Your task to perform on an android device: Open Android settings Image 0: 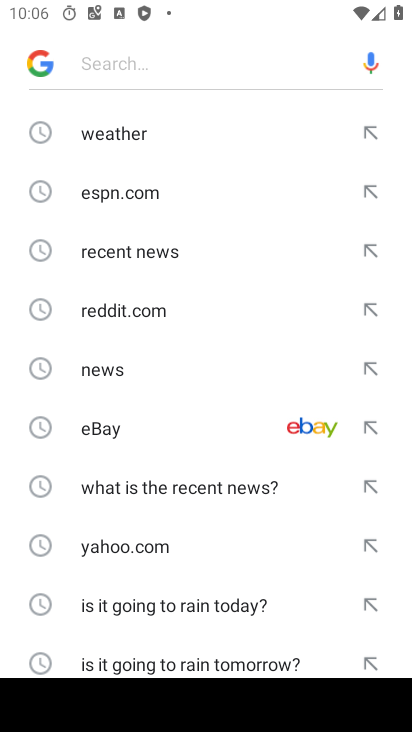
Step 0: press home button
Your task to perform on an android device: Open Android settings Image 1: 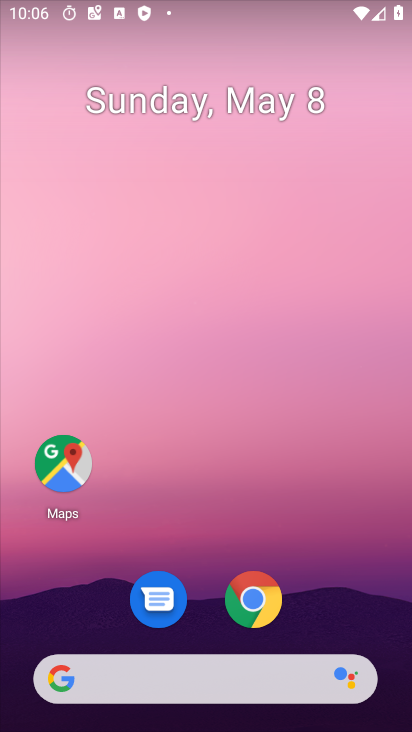
Step 1: drag from (217, 642) to (211, 186)
Your task to perform on an android device: Open Android settings Image 2: 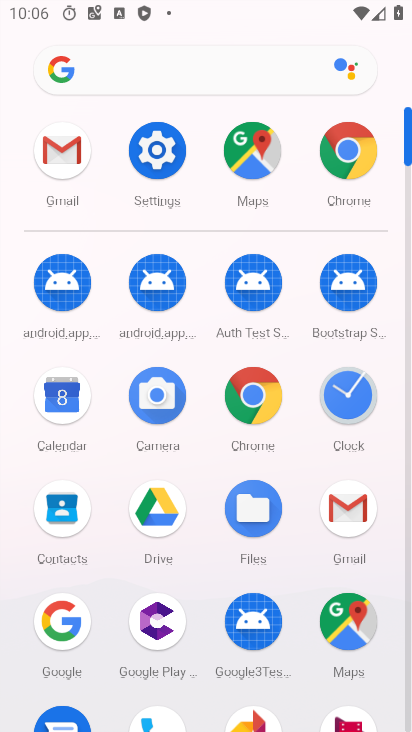
Step 2: click (160, 172)
Your task to perform on an android device: Open Android settings Image 3: 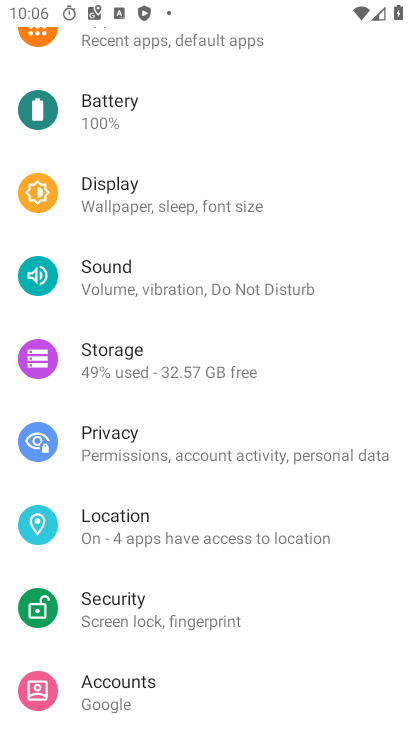
Step 3: drag from (149, 494) to (138, 190)
Your task to perform on an android device: Open Android settings Image 4: 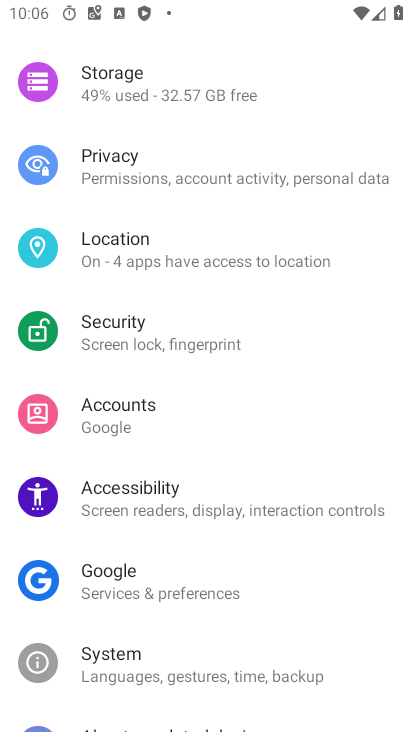
Step 4: drag from (135, 648) to (318, 178)
Your task to perform on an android device: Open Android settings Image 5: 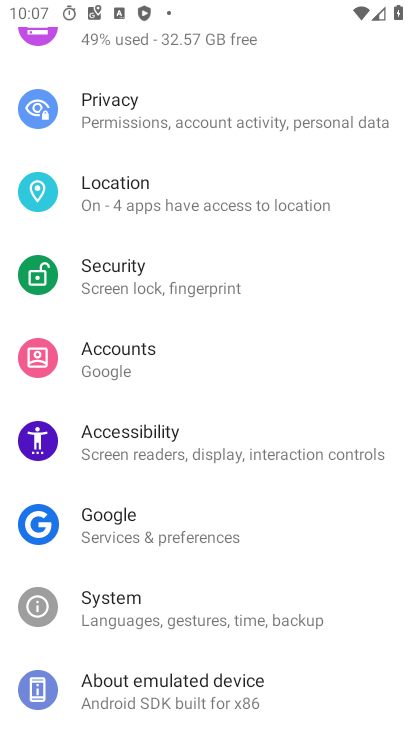
Step 5: click (227, 699)
Your task to perform on an android device: Open Android settings Image 6: 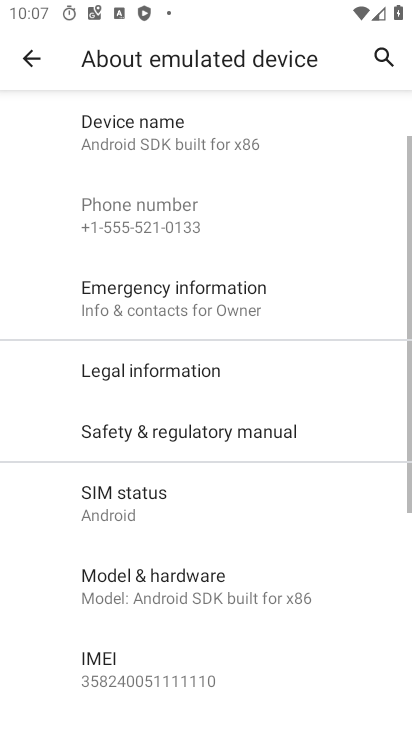
Step 6: click (236, 517)
Your task to perform on an android device: Open Android settings Image 7: 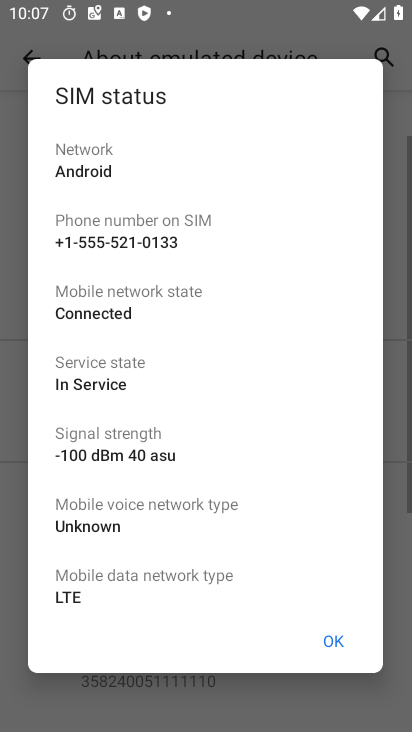
Step 7: click (332, 647)
Your task to perform on an android device: Open Android settings Image 8: 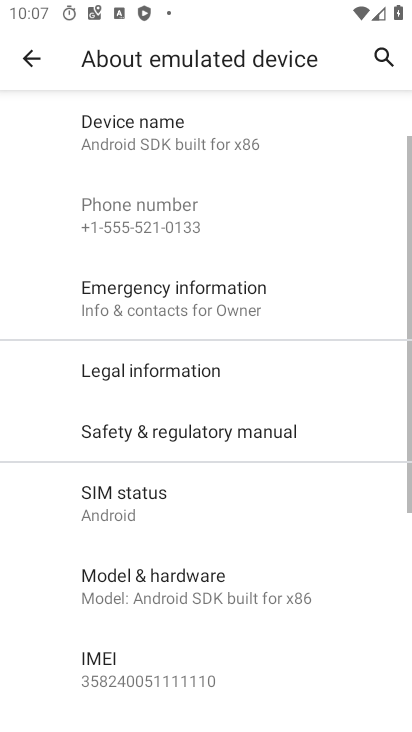
Step 8: drag from (297, 367) to (283, 501)
Your task to perform on an android device: Open Android settings Image 9: 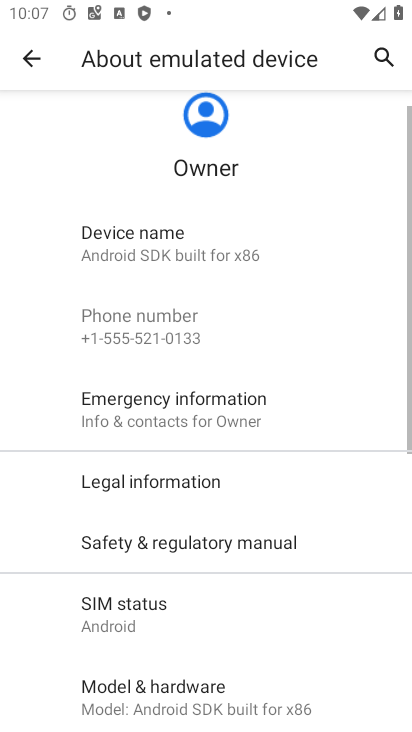
Step 9: drag from (283, 501) to (330, 276)
Your task to perform on an android device: Open Android settings Image 10: 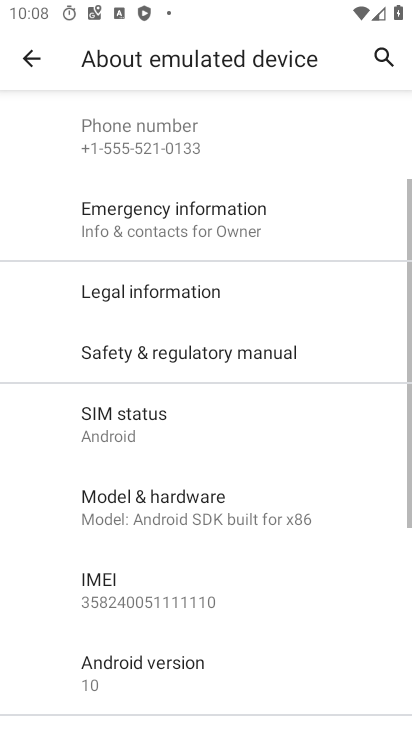
Step 10: click (213, 659)
Your task to perform on an android device: Open Android settings Image 11: 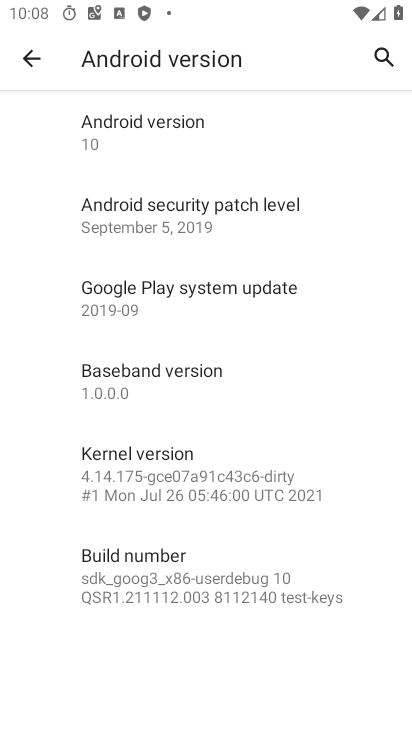
Step 11: task complete